Your task to perform on an android device: turn off smart reply in the gmail app Image 0: 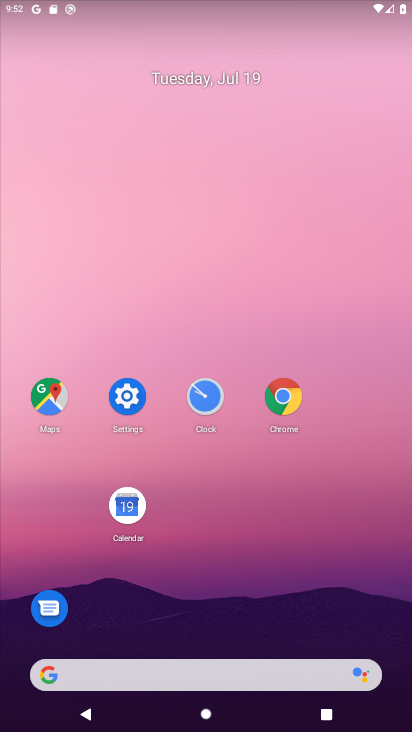
Step 0: drag from (395, 421) to (348, 30)
Your task to perform on an android device: turn off smart reply in the gmail app Image 1: 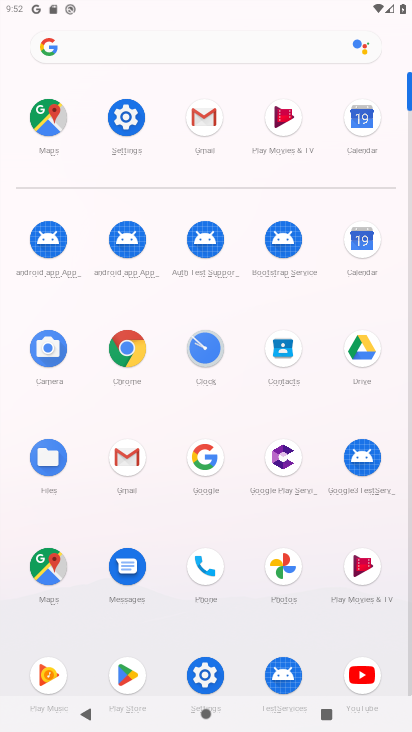
Step 1: click (113, 457)
Your task to perform on an android device: turn off smart reply in the gmail app Image 2: 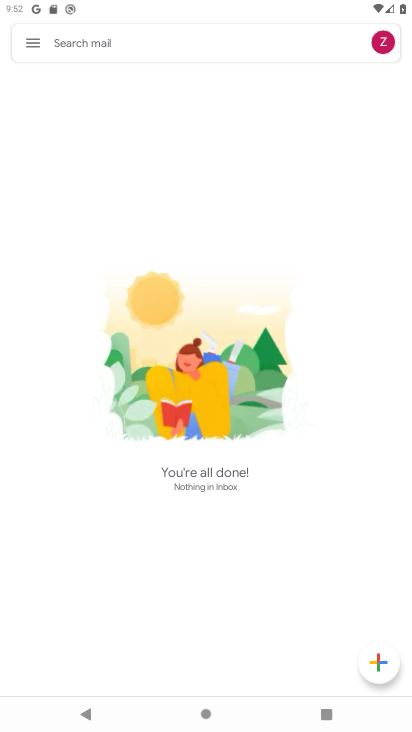
Step 2: click (27, 45)
Your task to perform on an android device: turn off smart reply in the gmail app Image 3: 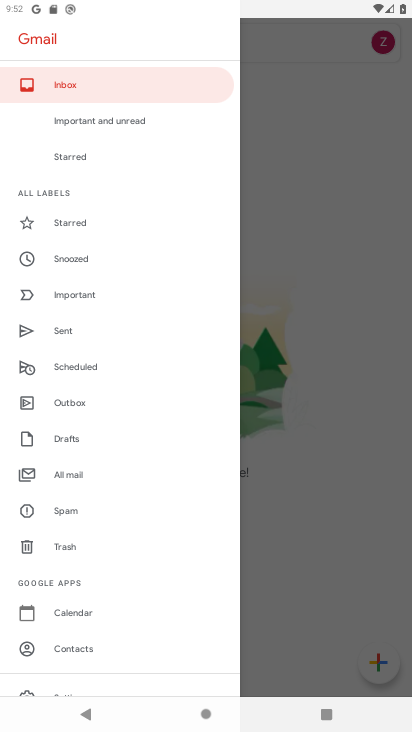
Step 3: drag from (155, 647) to (148, 383)
Your task to perform on an android device: turn off smart reply in the gmail app Image 4: 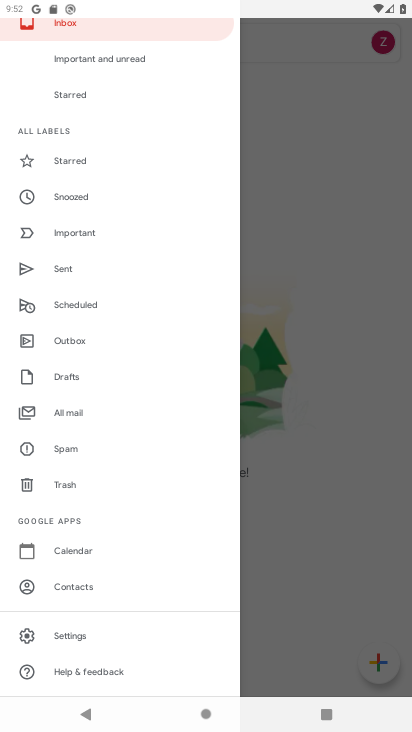
Step 4: click (72, 623)
Your task to perform on an android device: turn off smart reply in the gmail app Image 5: 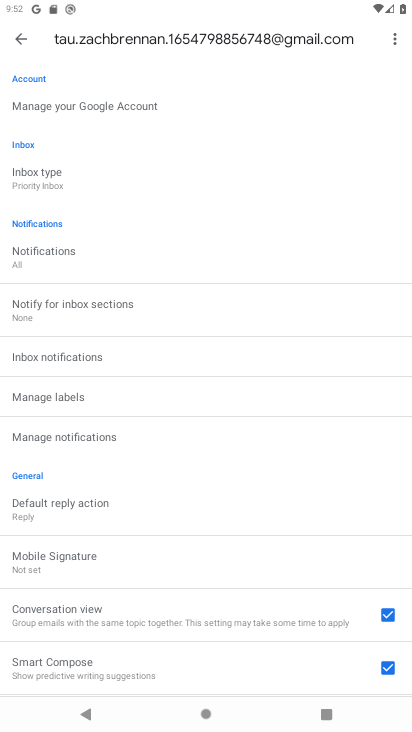
Step 5: click (67, 662)
Your task to perform on an android device: turn off smart reply in the gmail app Image 6: 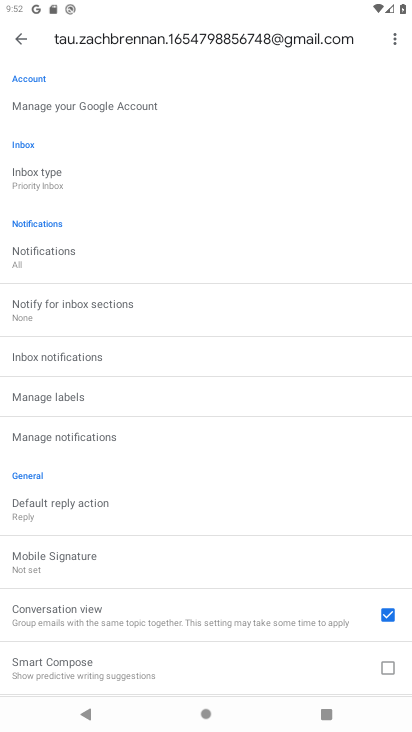
Step 6: task complete